Your task to perform on an android device: Go to internet settings Image 0: 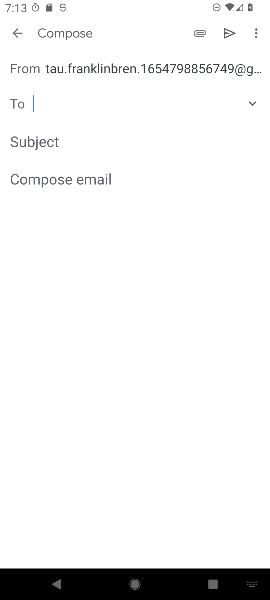
Step 0: press home button
Your task to perform on an android device: Go to internet settings Image 1: 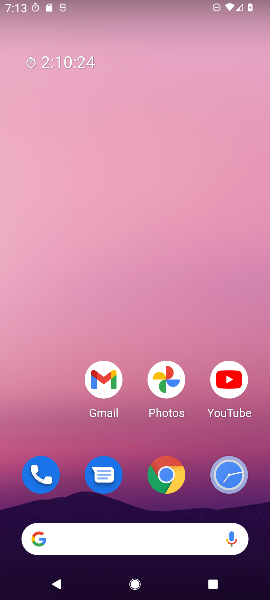
Step 1: drag from (68, 434) to (85, 140)
Your task to perform on an android device: Go to internet settings Image 2: 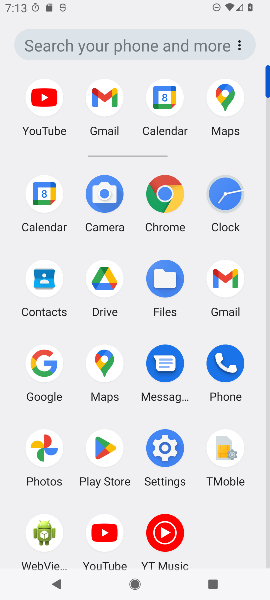
Step 2: click (166, 448)
Your task to perform on an android device: Go to internet settings Image 3: 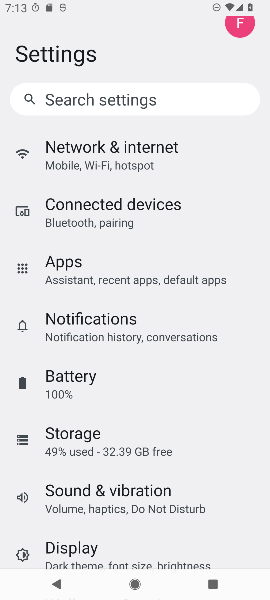
Step 3: drag from (226, 422) to (234, 343)
Your task to perform on an android device: Go to internet settings Image 4: 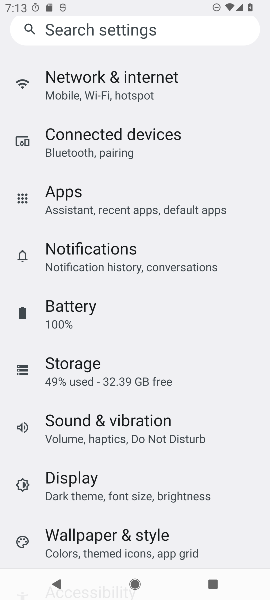
Step 4: drag from (229, 445) to (233, 338)
Your task to perform on an android device: Go to internet settings Image 5: 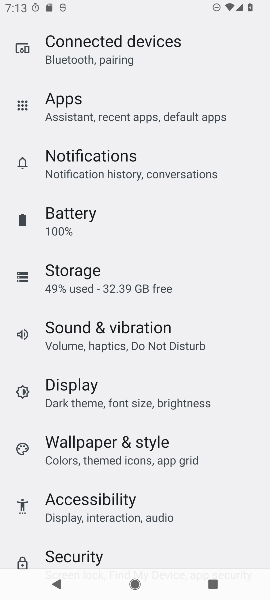
Step 5: click (233, 338)
Your task to perform on an android device: Go to internet settings Image 6: 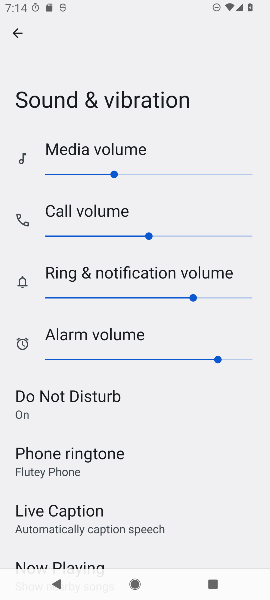
Step 6: drag from (209, 451) to (214, 378)
Your task to perform on an android device: Go to internet settings Image 7: 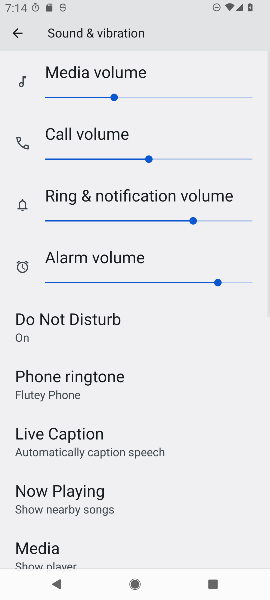
Step 7: press back button
Your task to perform on an android device: Go to internet settings Image 8: 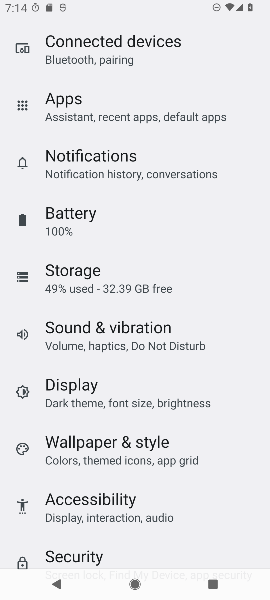
Step 8: drag from (229, 199) to (231, 284)
Your task to perform on an android device: Go to internet settings Image 9: 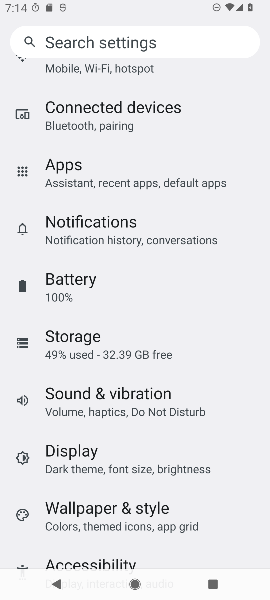
Step 9: drag from (233, 152) to (236, 301)
Your task to perform on an android device: Go to internet settings Image 10: 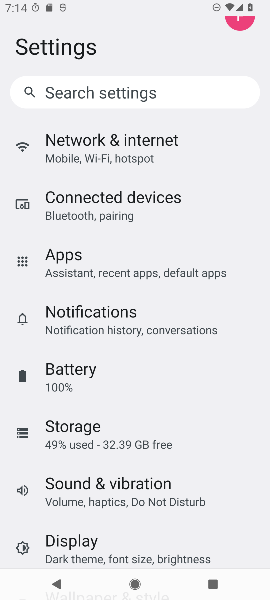
Step 10: click (145, 157)
Your task to perform on an android device: Go to internet settings Image 11: 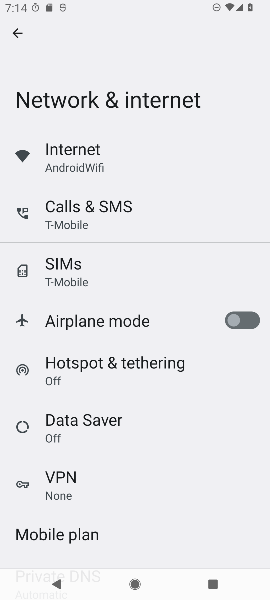
Step 11: task complete